Your task to perform on an android device: toggle location history Image 0: 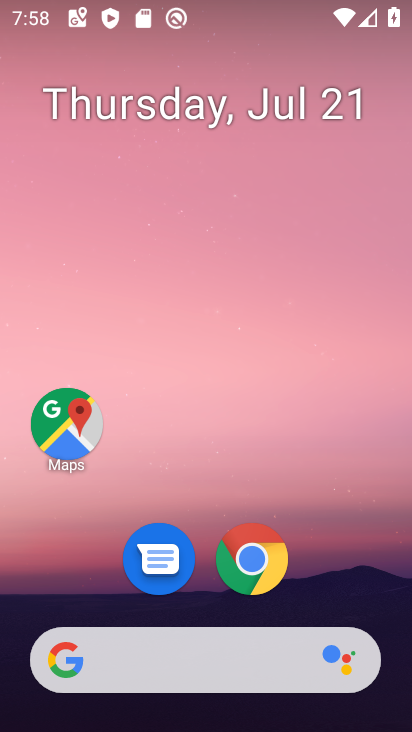
Step 0: drag from (179, 631) to (253, 184)
Your task to perform on an android device: toggle location history Image 1: 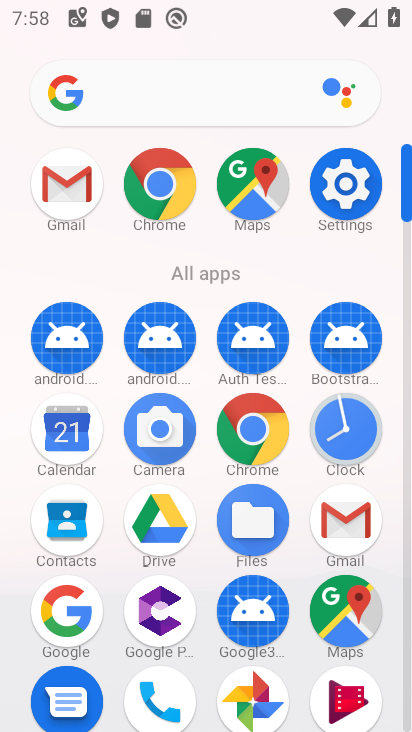
Step 1: click (357, 197)
Your task to perform on an android device: toggle location history Image 2: 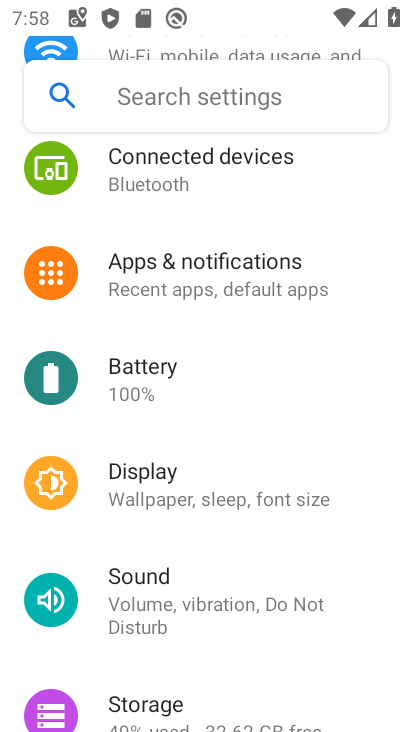
Step 2: drag from (185, 508) to (252, 191)
Your task to perform on an android device: toggle location history Image 3: 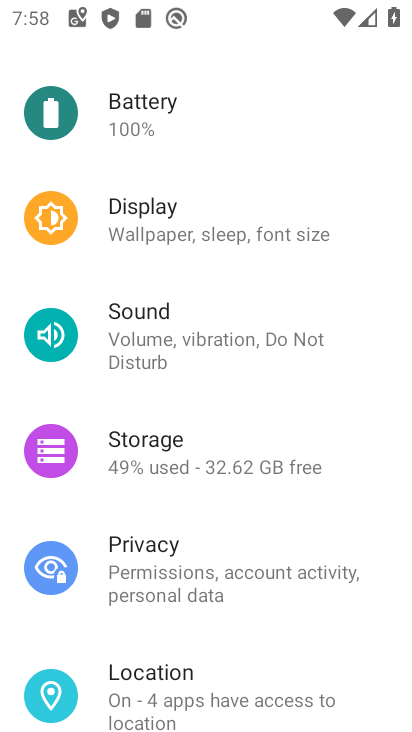
Step 3: click (167, 700)
Your task to perform on an android device: toggle location history Image 4: 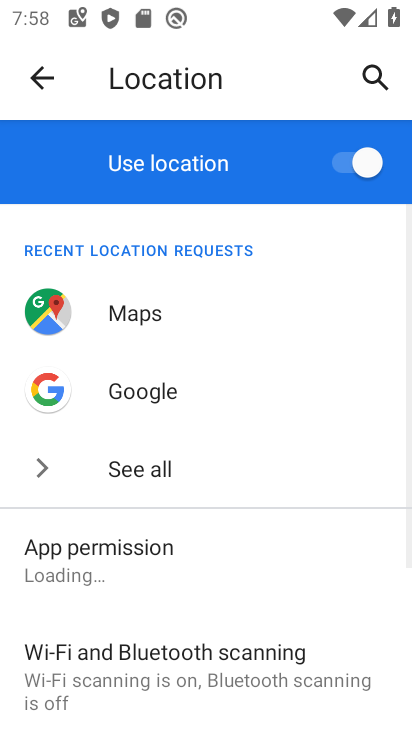
Step 4: drag from (187, 607) to (280, 325)
Your task to perform on an android device: toggle location history Image 5: 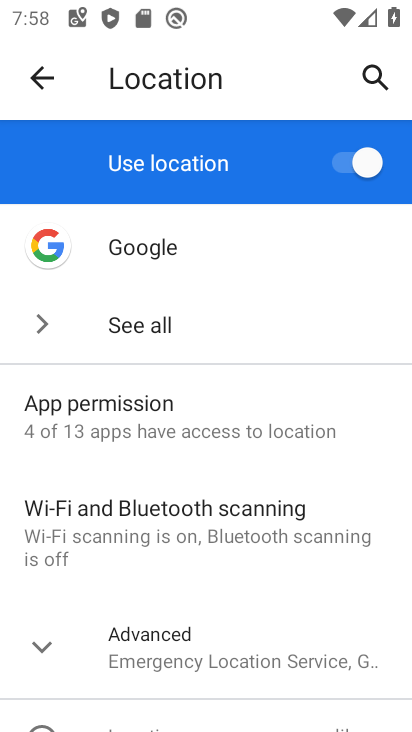
Step 5: drag from (213, 617) to (268, 418)
Your task to perform on an android device: toggle location history Image 6: 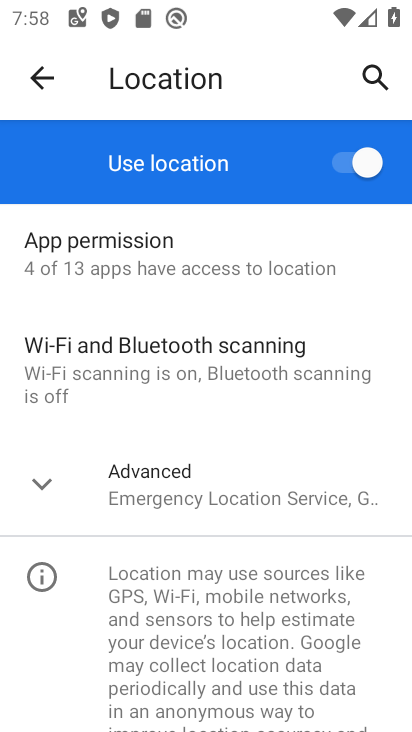
Step 6: click (214, 498)
Your task to perform on an android device: toggle location history Image 7: 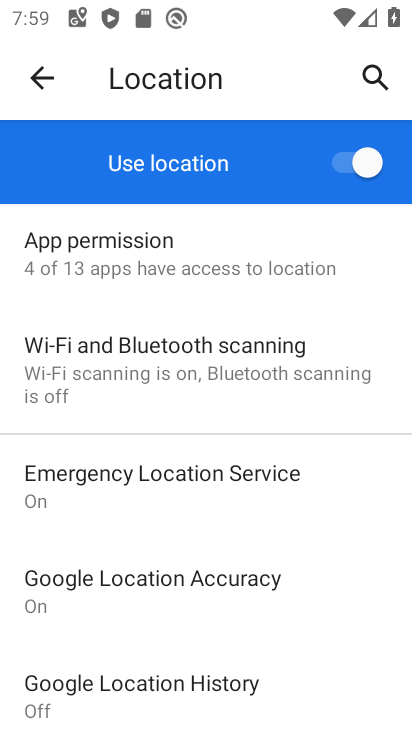
Step 7: click (212, 673)
Your task to perform on an android device: toggle location history Image 8: 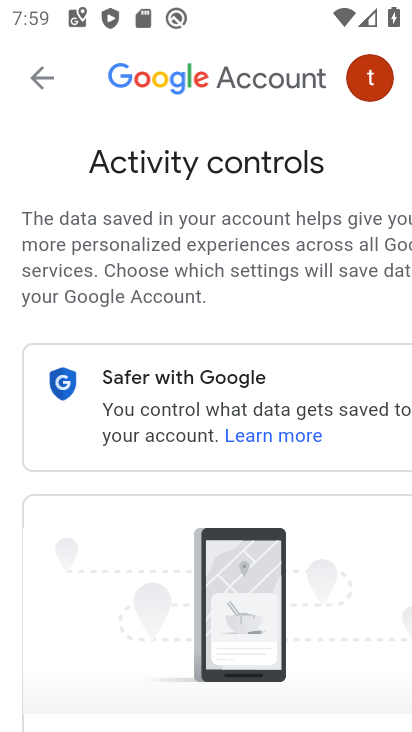
Step 8: task complete